Your task to perform on an android device: Open ESPN.com Image 0: 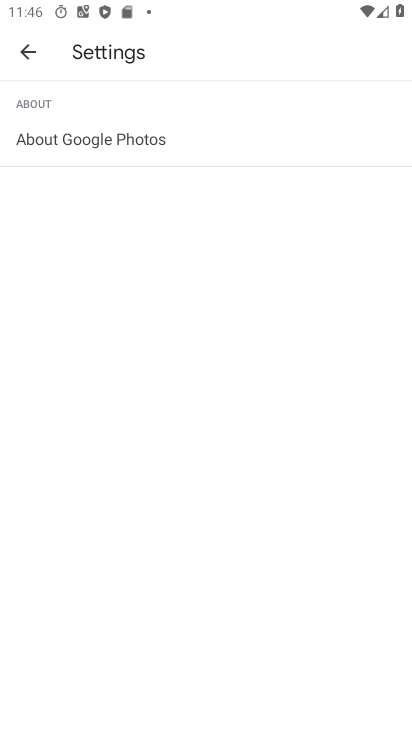
Step 0: press home button
Your task to perform on an android device: Open ESPN.com Image 1: 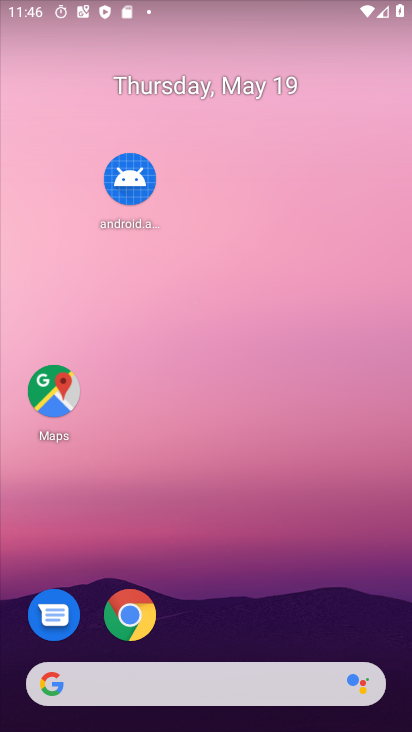
Step 1: click (142, 606)
Your task to perform on an android device: Open ESPN.com Image 2: 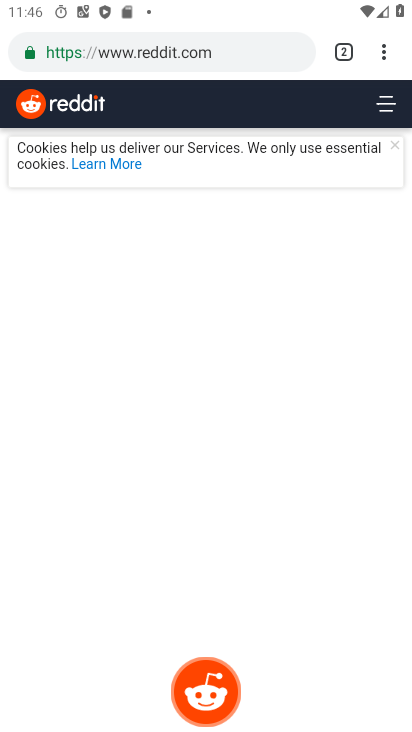
Step 2: click (163, 48)
Your task to perform on an android device: Open ESPN.com Image 3: 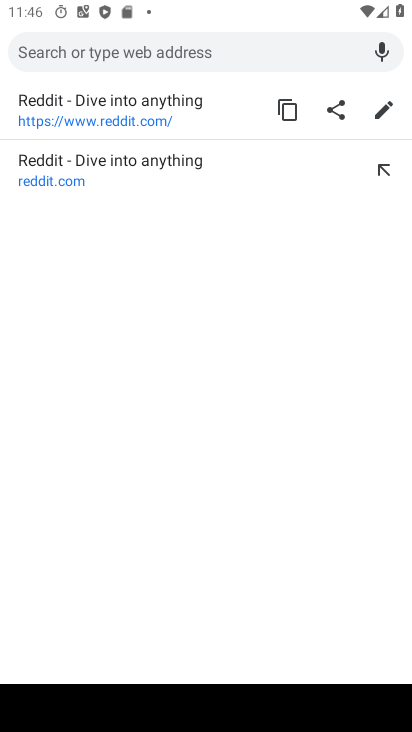
Step 3: type "espn.com"
Your task to perform on an android device: Open ESPN.com Image 4: 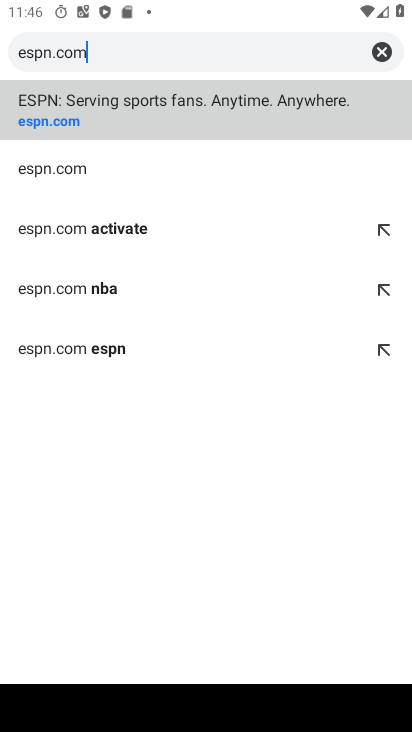
Step 4: click (339, 116)
Your task to perform on an android device: Open ESPN.com Image 5: 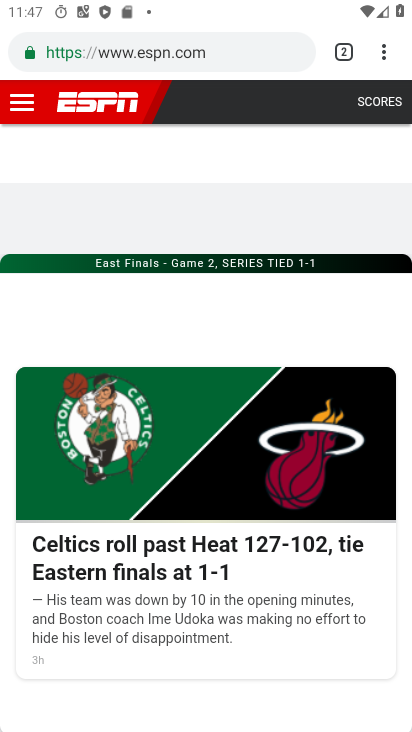
Step 5: task complete